Your task to perform on an android device: Go to eBay Image 0: 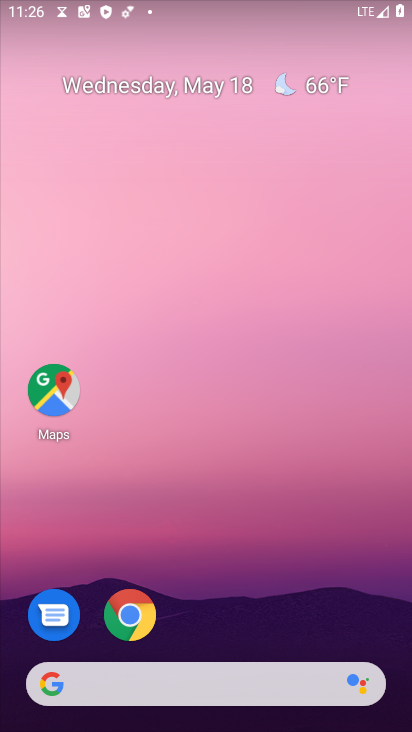
Step 0: drag from (266, 587) to (199, 22)
Your task to perform on an android device: Go to eBay Image 1: 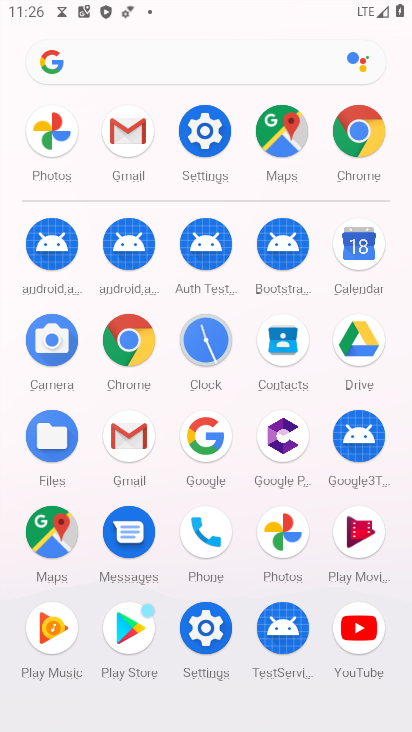
Step 1: drag from (6, 528) to (1, 133)
Your task to perform on an android device: Go to eBay Image 2: 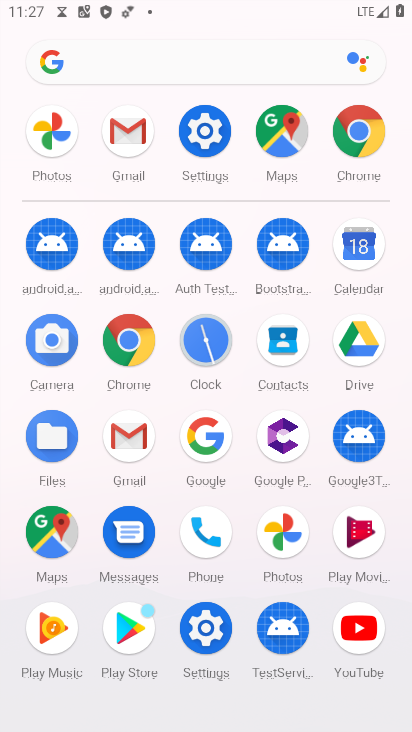
Step 2: click (128, 333)
Your task to perform on an android device: Go to eBay Image 3: 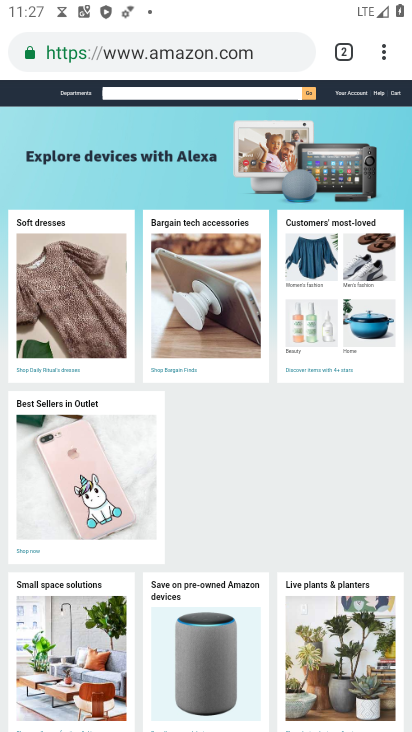
Step 3: click (171, 38)
Your task to perform on an android device: Go to eBay Image 4: 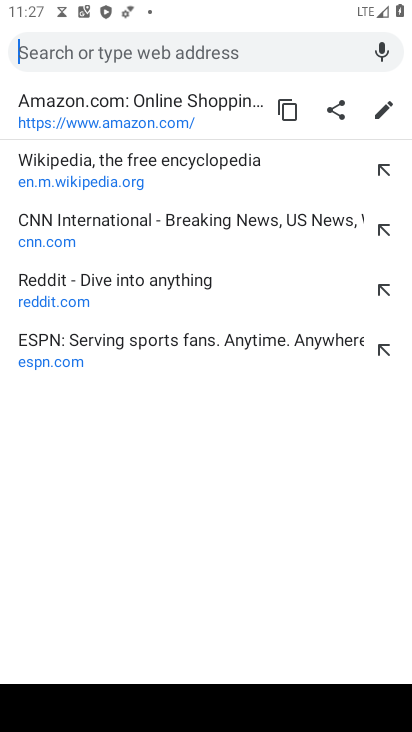
Step 4: click (120, 164)
Your task to perform on an android device: Go to eBay Image 5: 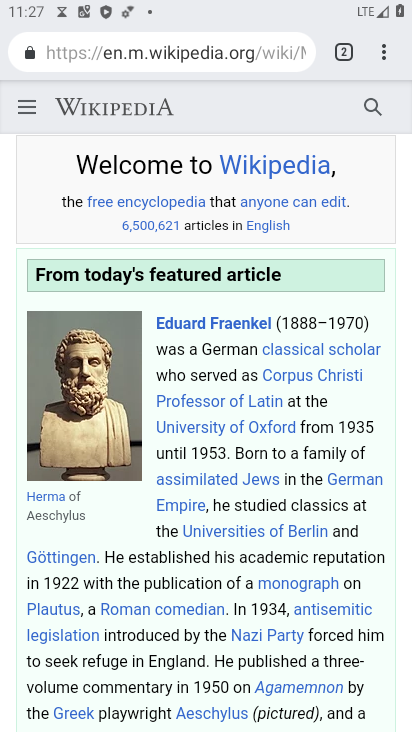
Step 5: task complete